Your task to perform on an android device: Open Chrome and go to settings Image 0: 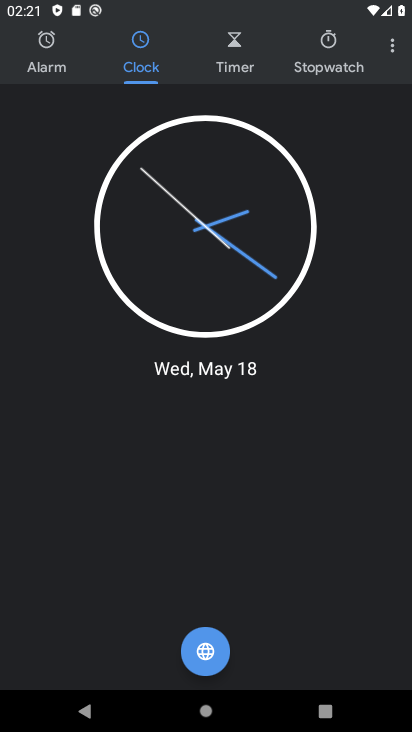
Step 0: press home button
Your task to perform on an android device: Open Chrome and go to settings Image 1: 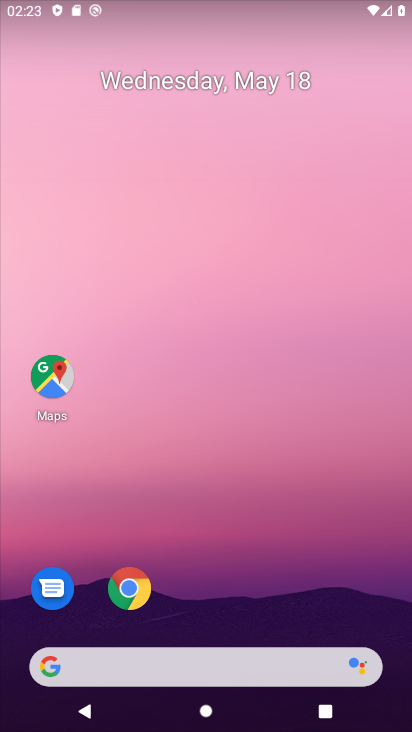
Step 1: click (120, 582)
Your task to perform on an android device: Open Chrome and go to settings Image 2: 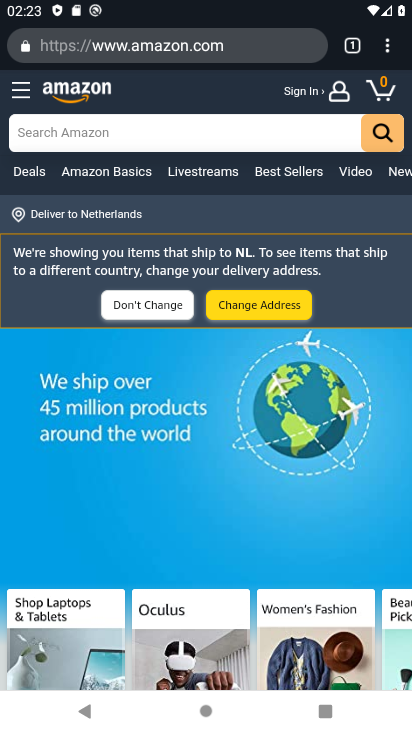
Step 2: click (385, 54)
Your task to perform on an android device: Open Chrome and go to settings Image 3: 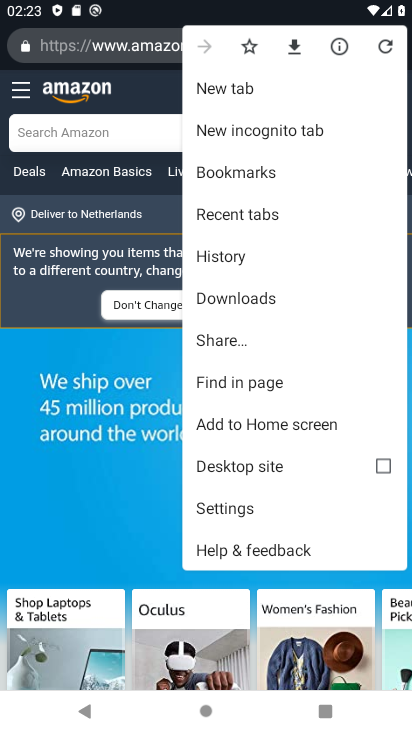
Step 3: click (241, 506)
Your task to perform on an android device: Open Chrome and go to settings Image 4: 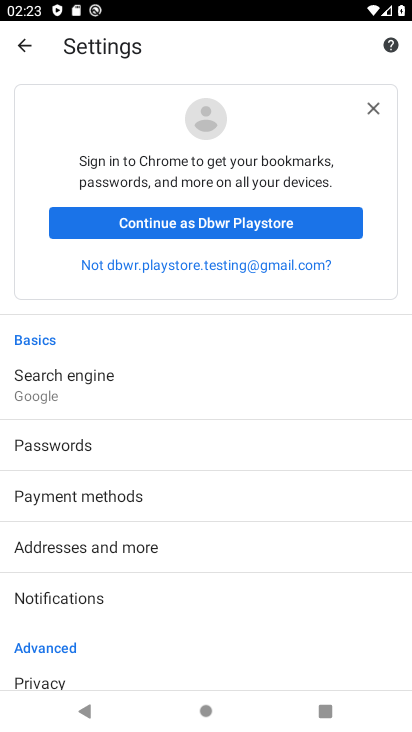
Step 4: task complete